Your task to perform on an android device: What's the weather? Image 0: 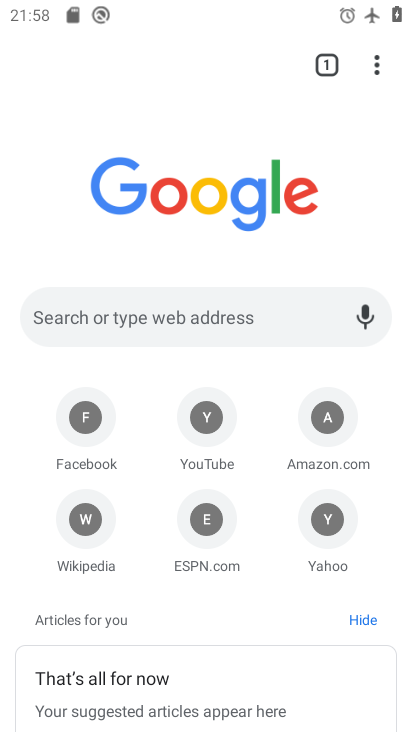
Step 0: press home button
Your task to perform on an android device: What's the weather? Image 1: 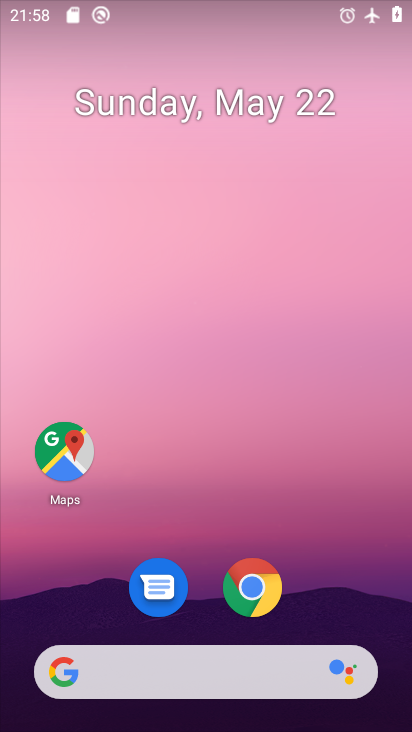
Step 1: click (214, 670)
Your task to perform on an android device: What's the weather? Image 2: 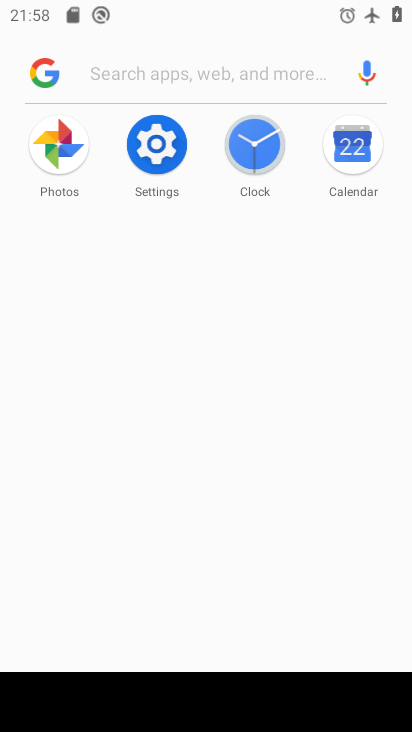
Step 2: task complete